Your task to perform on an android device: toggle sleep mode Image 0: 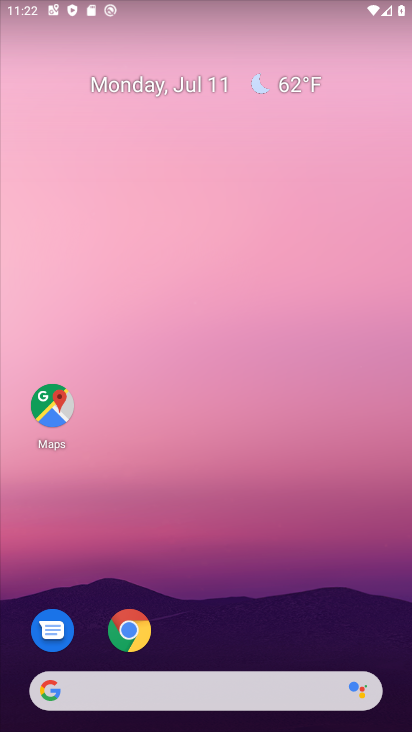
Step 0: drag from (328, 683) to (174, 0)
Your task to perform on an android device: toggle sleep mode Image 1: 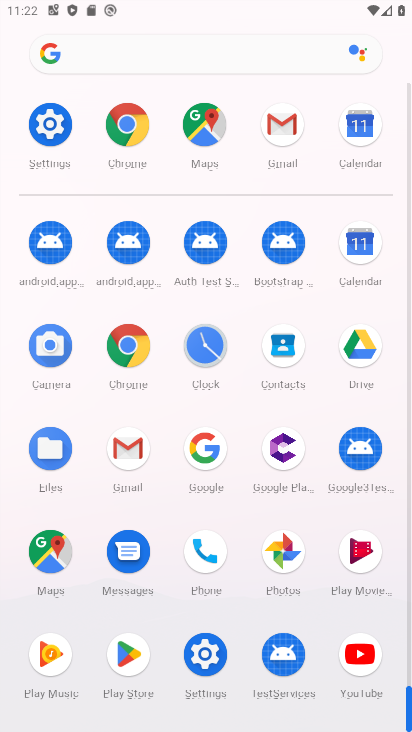
Step 1: click (56, 119)
Your task to perform on an android device: toggle sleep mode Image 2: 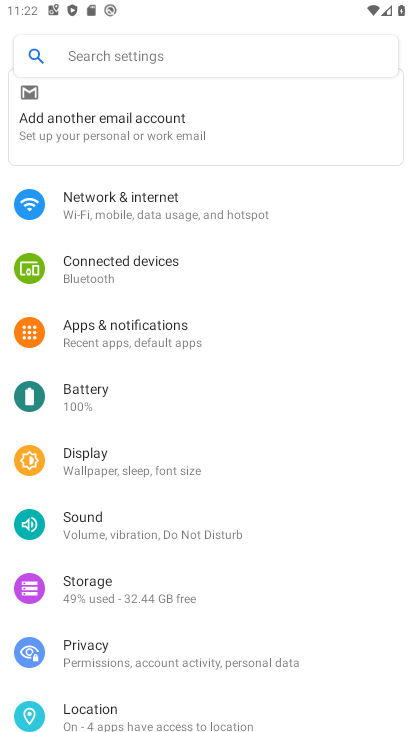
Step 2: click (173, 470)
Your task to perform on an android device: toggle sleep mode Image 3: 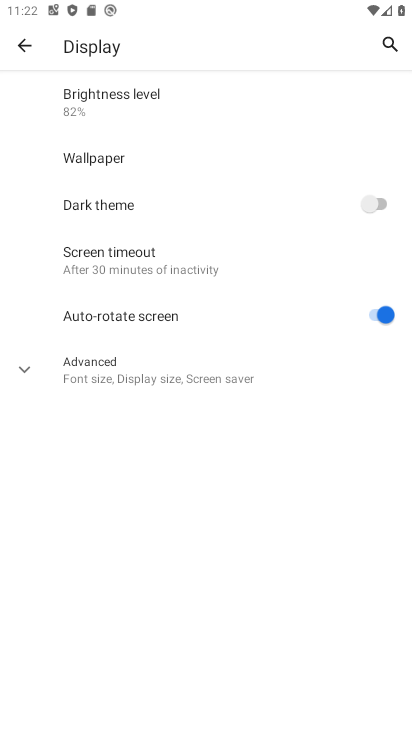
Step 3: click (125, 266)
Your task to perform on an android device: toggle sleep mode Image 4: 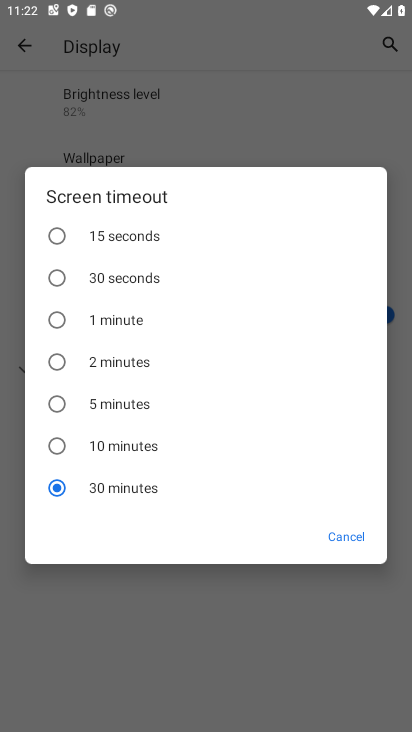
Step 4: task complete